Your task to perform on an android device: Show me productivity apps on the Play Store Image 0: 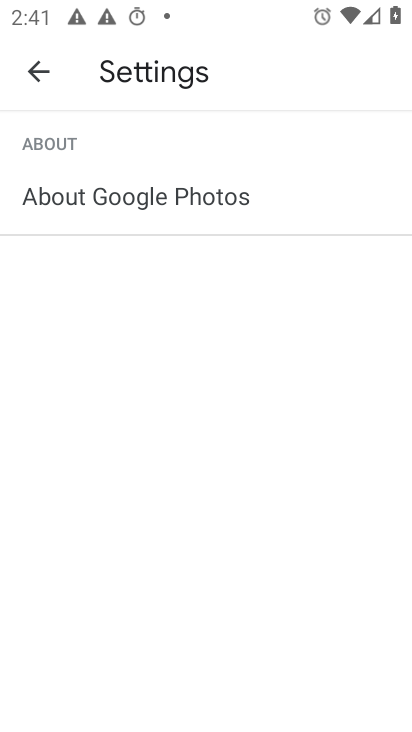
Step 0: press home button
Your task to perform on an android device: Show me productivity apps on the Play Store Image 1: 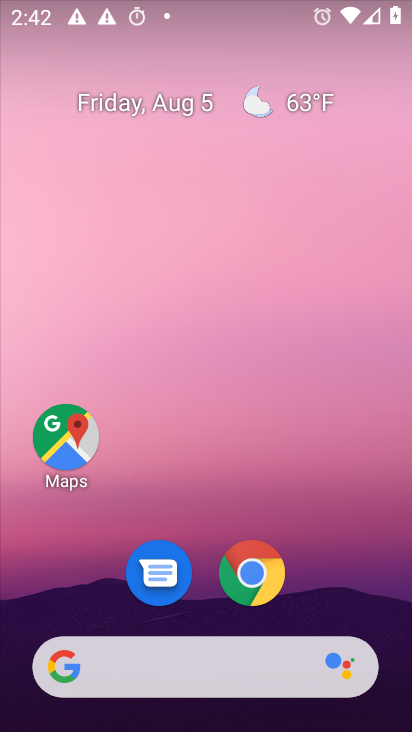
Step 1: drag from (344, 489) to (373, 197)
Your task to perform on an android device: Show me productivity apps on the Play Store Image 2: 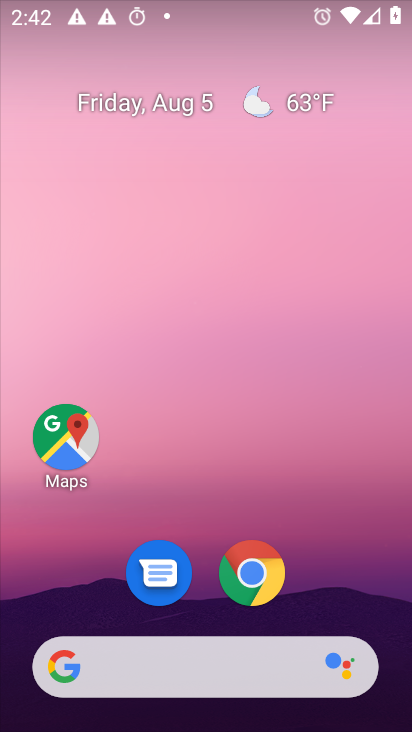
Step 2: drag from (326, 560) to (359, 144)
Your task to perform on an android device: Show me productivity apps on the Play Store Image 3: 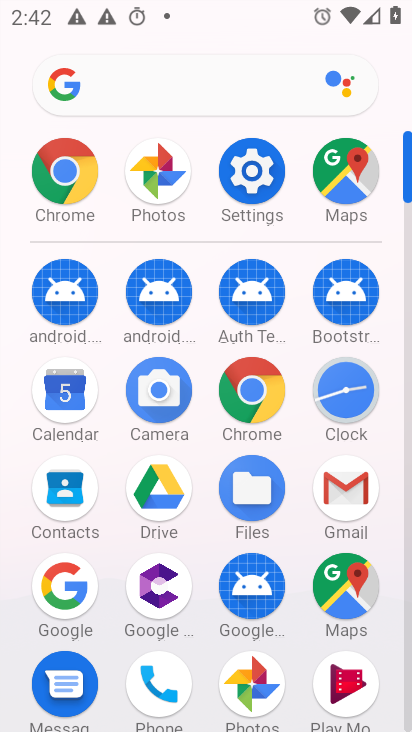
Step 3: drag from (388, 544) to (390, 349)
Your task to perform on an android device: Show me productivity apps on the Play Store Image 4: 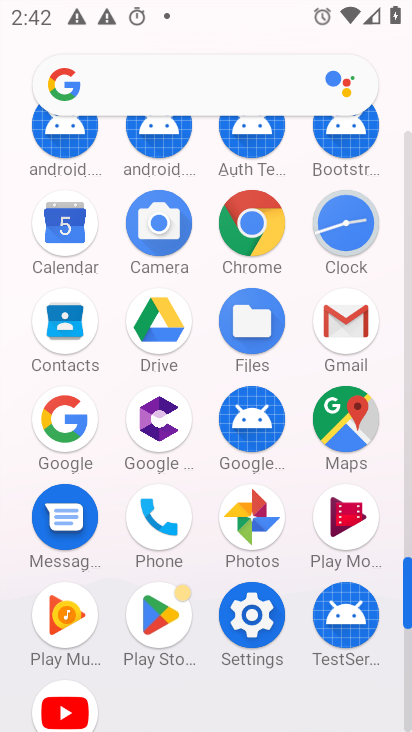
Step 4: click (152, 629)
Your task to perform on an android device: Show me productivity apps on the Play Store Image 5: 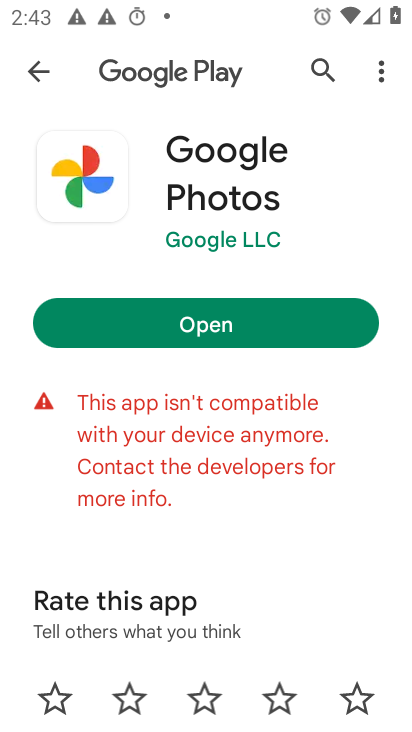
Step 5: click (42, 68)
Your task to perform on an android device: Show me productivity apps on the Play Store Image 6: 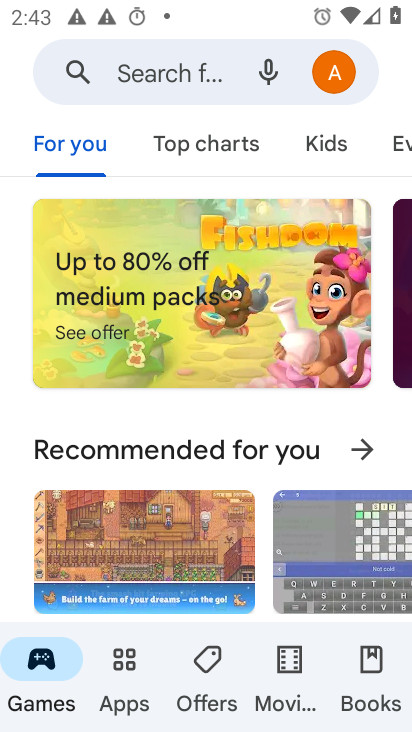
Step 6: click (125, 666)
Your task to perform on an android device: Show me productivity apps on the Play Store Image 7: 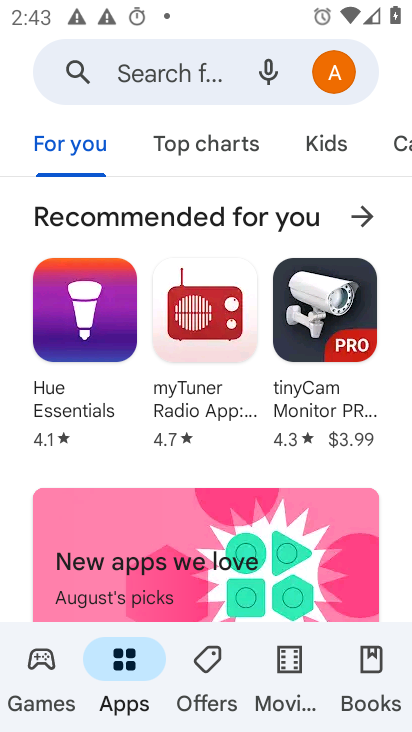
Step 7: task complete